Your task to perform on an android device: When is my next meeting? Image 0: 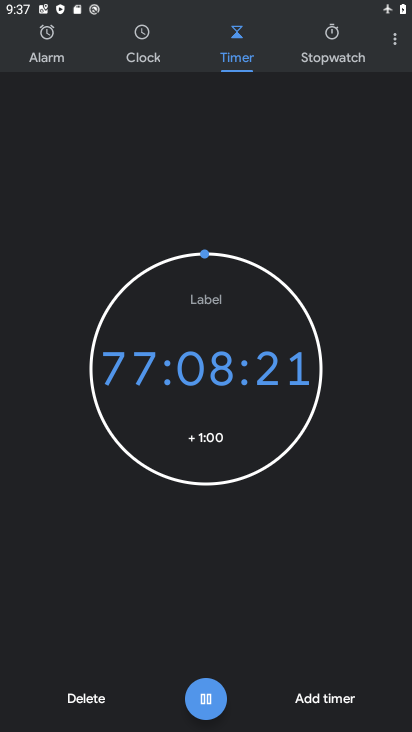
Step 0: press home button
Your task to perform on an android device: When is my next meeting? Image 1: 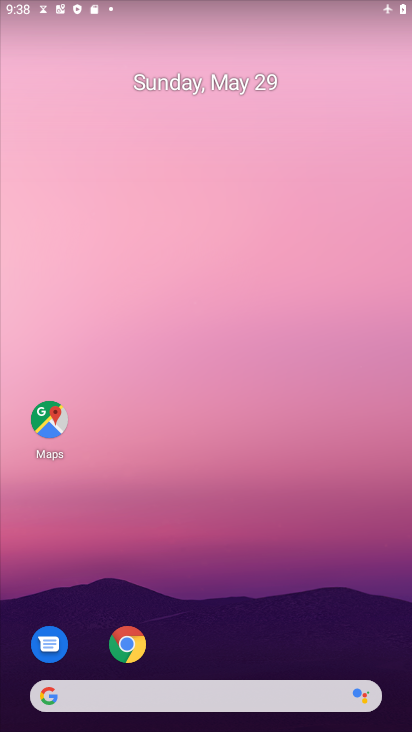
Step 1: drag from (241, 576) to (232, 239)
Your task to perform on an android device: When is my next meeting? Image 2: 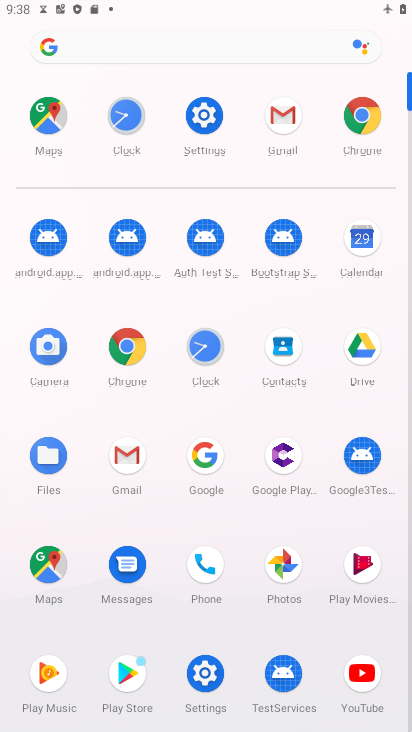
Step 2: click (204, 115)
Your task to perform on an android device: When is my next meeting? Image 3: 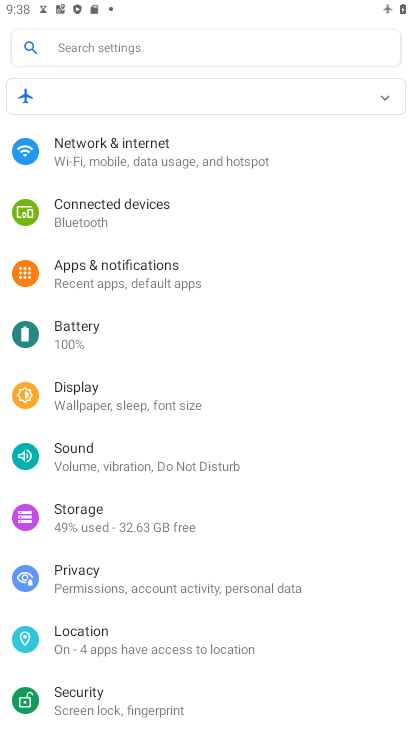
Step 3: press home button
Your task to perform on an android device: When is my next meeting? Image 4: 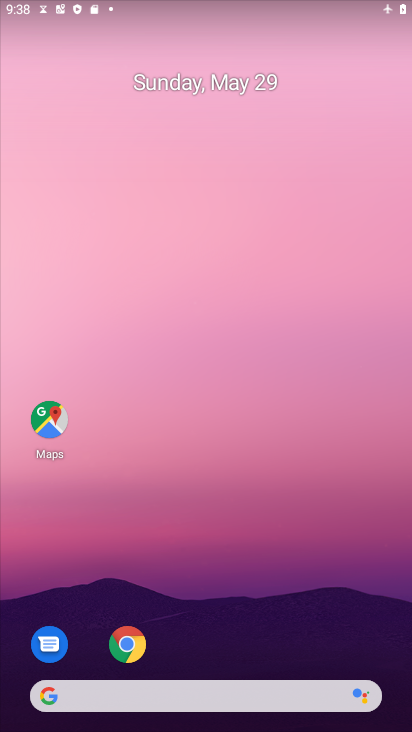
Step 4: drag from (282, 598) to (283, 151)
Your task to perform on an android device: When is my next meeting? Image 5: 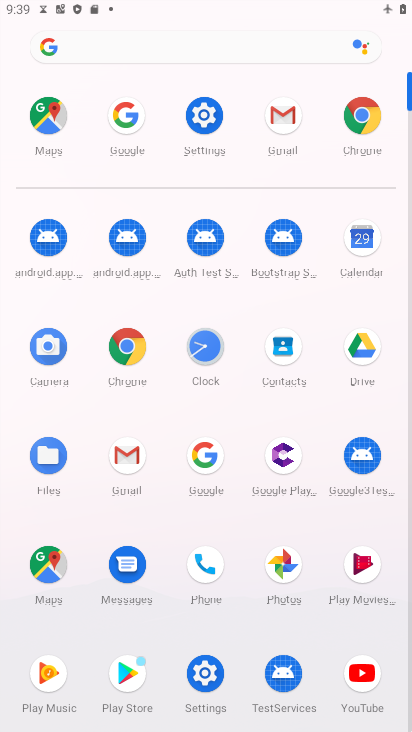
Step 5: click (360, 243)
Your task to perform on an android device: When is my next meeting? Image 6: 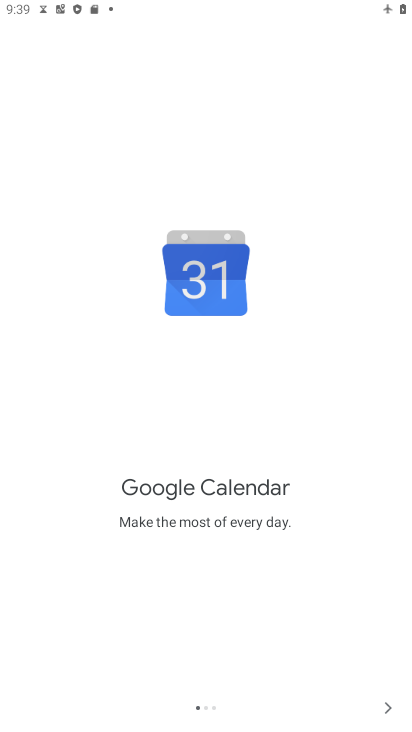
Step 6: click (363, 708)
Your task to perform on an android device: When is my next meeting? Image 7: 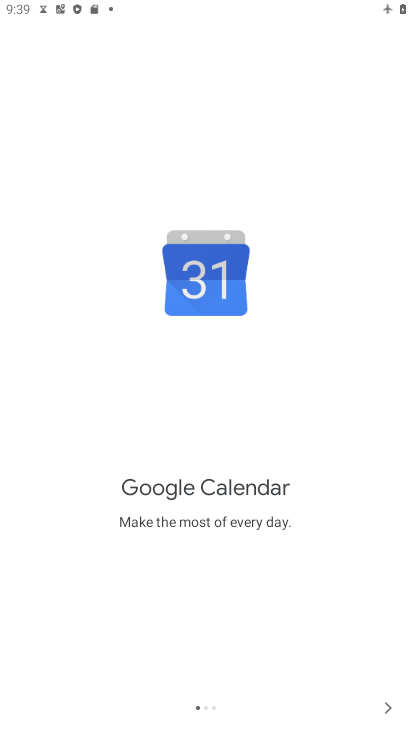
Step 7: click (376, 704)
Your task to perform on an android device: When is my next meeting? Image 8: 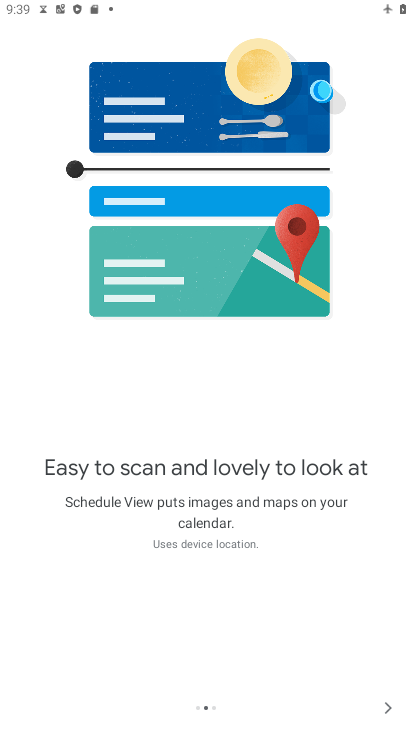
Step 8: click (379, 700)
Your task to perform on an android device: When is my next meeting? Image 9: 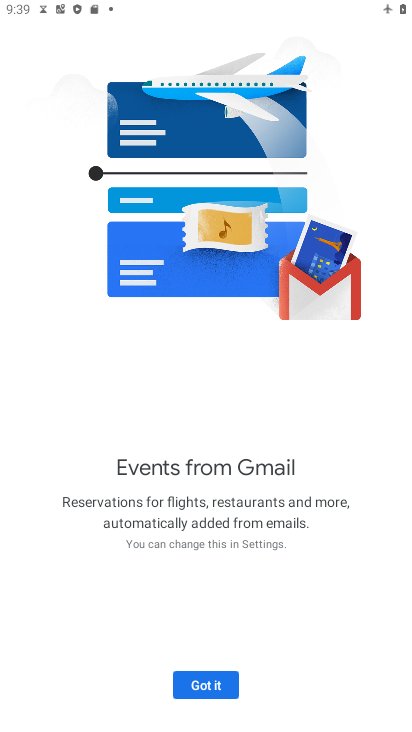
Step 9: click (223, 688)
Your task to perform on an android device: When is my next meeting? Image 10: 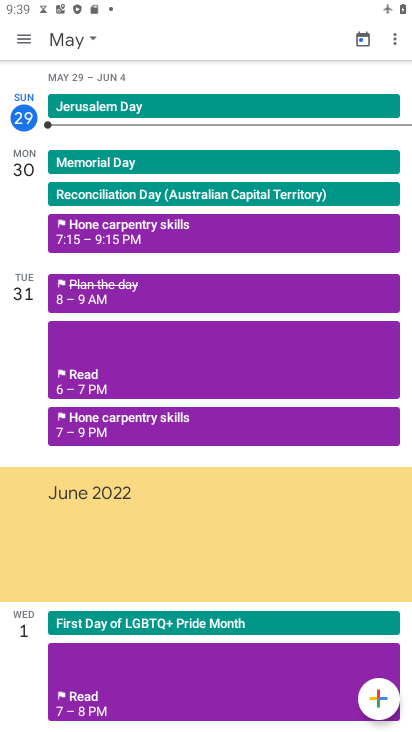
Step 10: task complete